Your task to perform on an android device: Open Google Chrome and click the shortcut for Amazon.com Image 0: 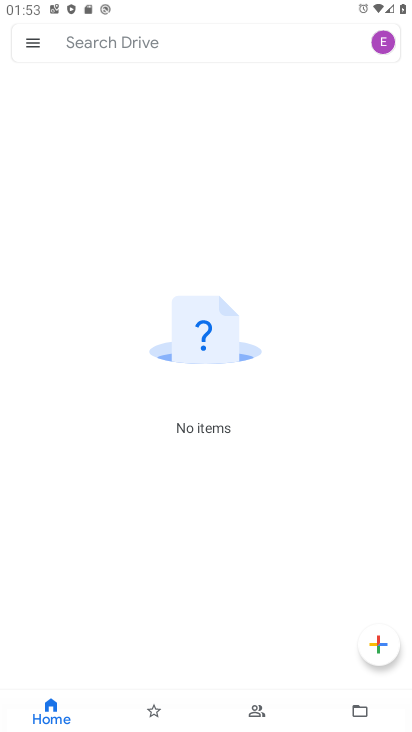
Step 0: press home button
Your task to perform on an android device: Open Google Chrome and click the shortcut for Amazon.com Image 1: 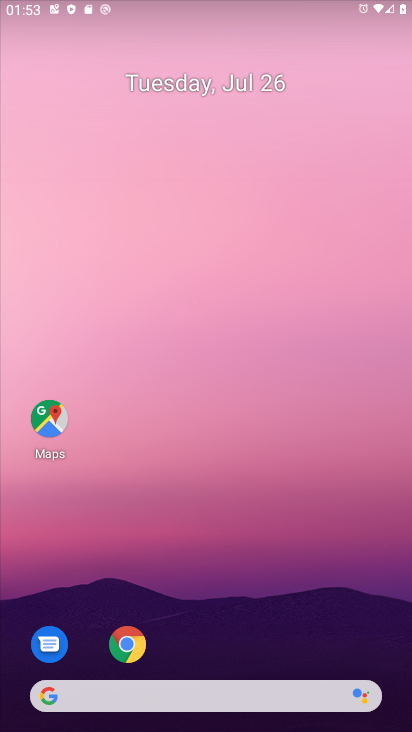
Step 1: drag from (212, 622) to (199, 181)
Your task to perform on an android device: Open Google Chrome and click the shortcut for Amazon.com Image 2: 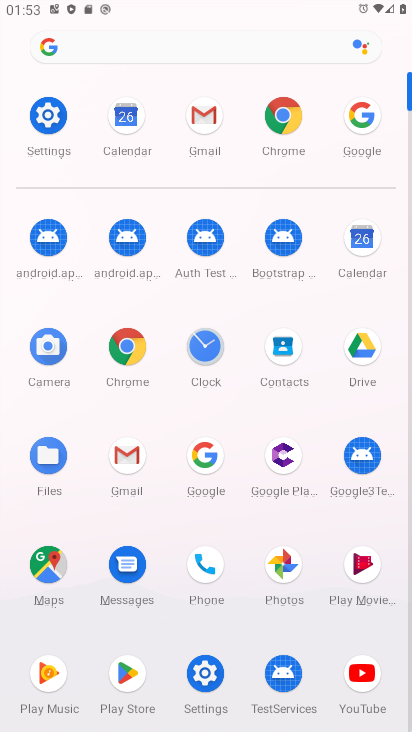
Step 2: click (282, 104)
Your task to perform on an android device: Open Google Chrome and click the shortcut for Amazon.com Image 3: 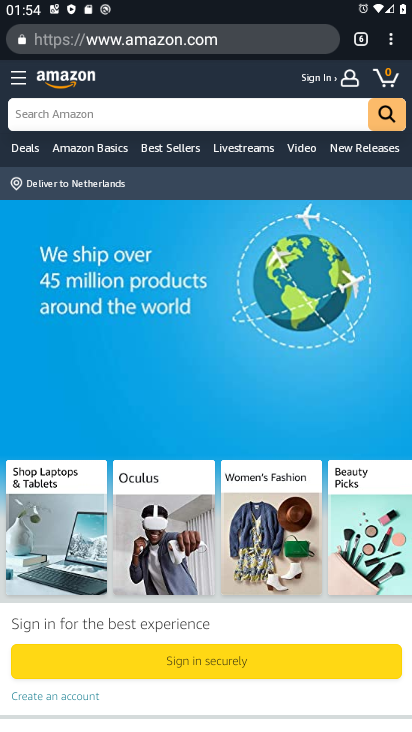
Step 3: task complete